Your task to perform on an android device: open app "Messages" (install if not already installed) and go to login screen Image 0: 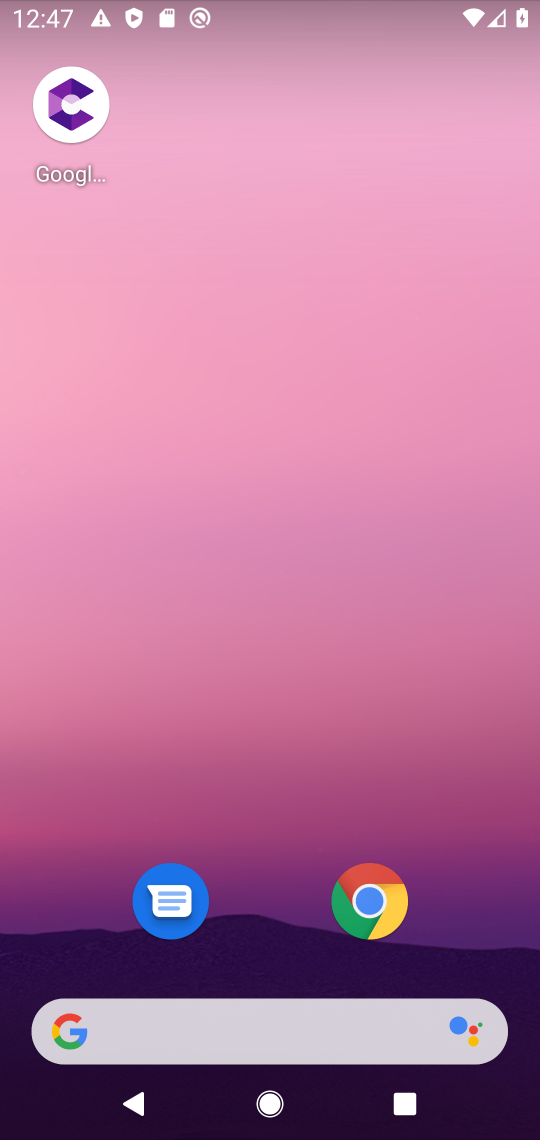
Step 0: click (166, 882)
Your task to perform on an android device: open app "Messages" (install if not already installed) and go to login screen Image 1: 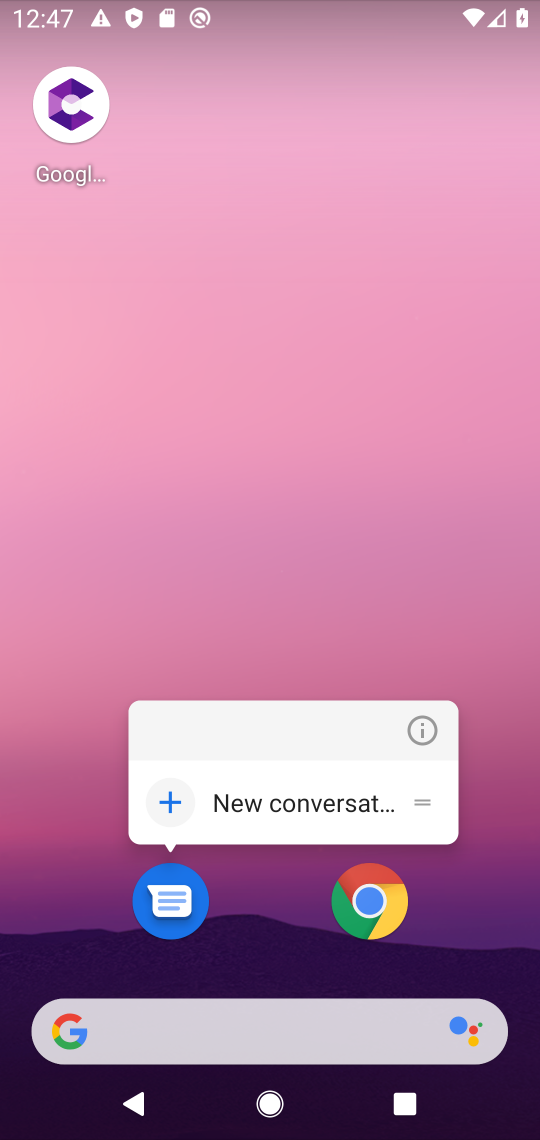
Step 1: click (168, 911)
Your task to perform on an android device: open app "Messages" (install if not already installed) and go to login screen Image 2: 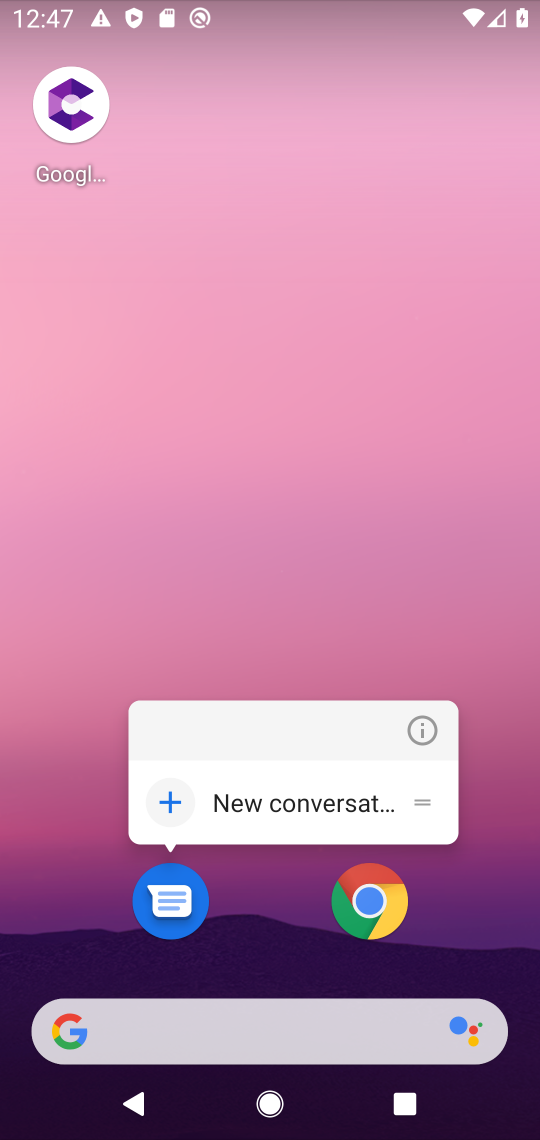
Step 2: click (175, 901)
Your task to perform on an android device: open app "Messages" (install if not already installed) and go to login screen Image 3: 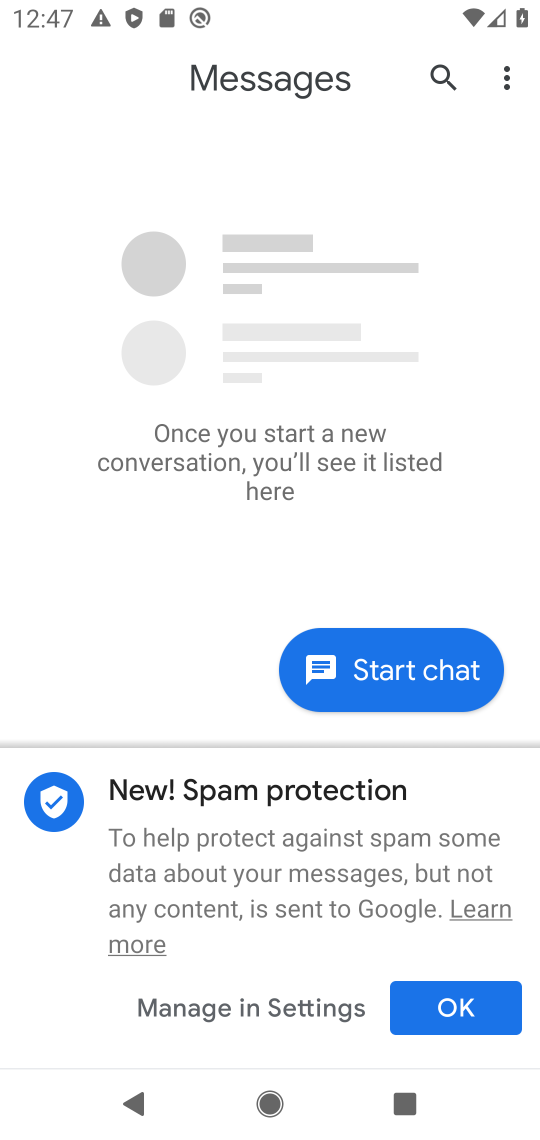
Step 3: task complete